Your task to perform on an android device: What's the weather? Image 0: 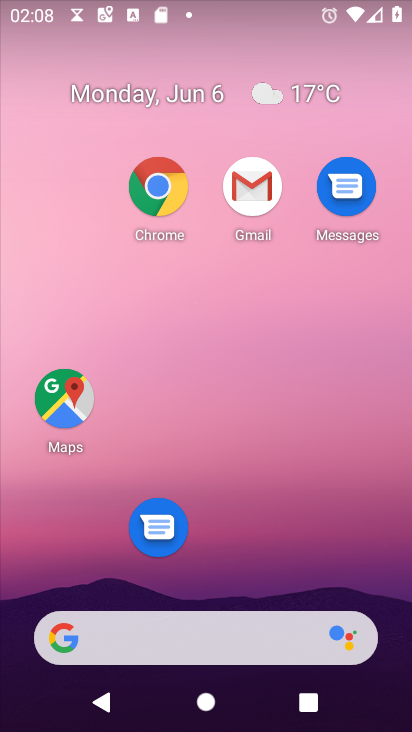
Step 0: drag from (259, 569) to (97, 103)
Your task to perform on an android device: What's the weather? Image 1: 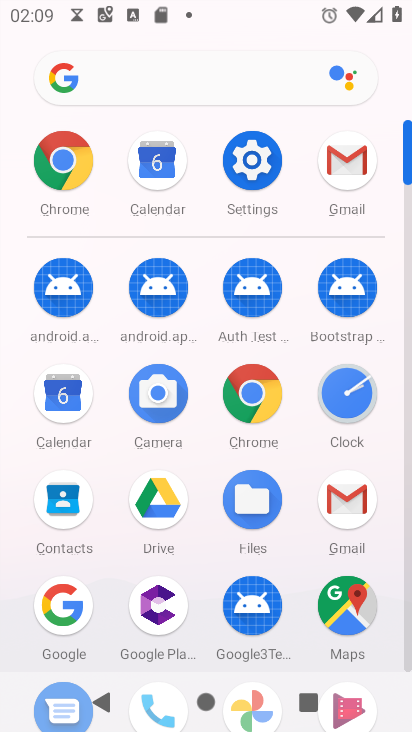
Step 1: click (78, 602)
Your task to perform on an android device: What's the weather? Image 2: 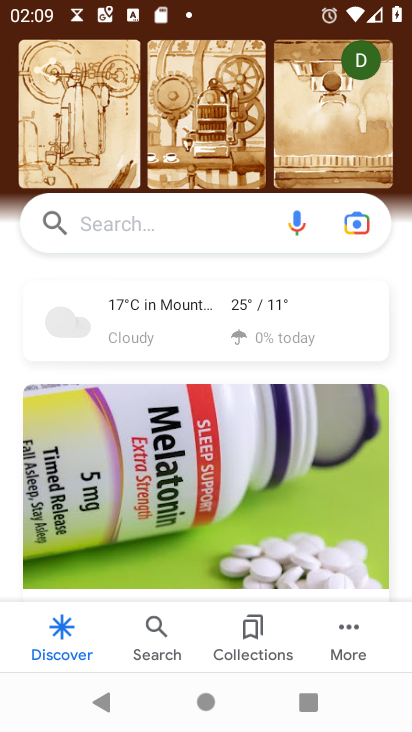
Step 2: click (181, 213)
Your task to perform on an android device: What's the weather? Image 3: 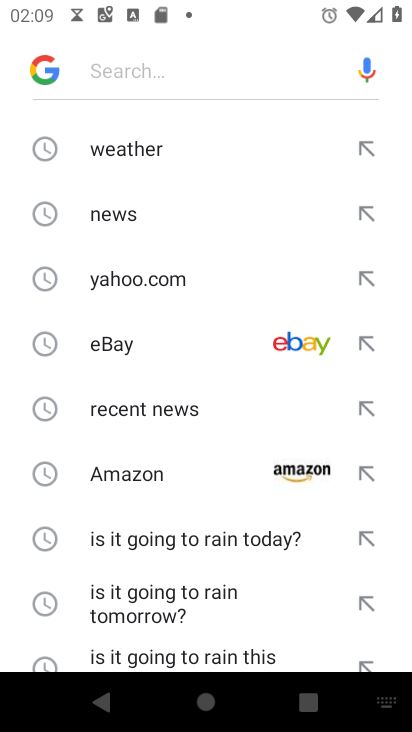
Step 3: click (154, 155)
Your task to perform on an android device: What's the weather? Image 4: 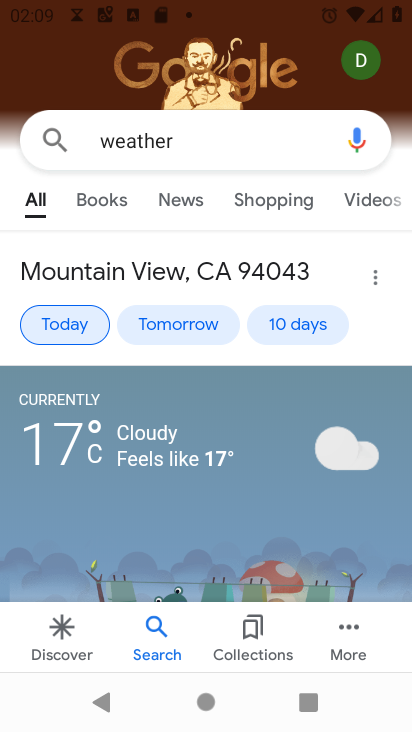
Step 4: task complete